Your task to perform on an android device: Open maps Image 0: 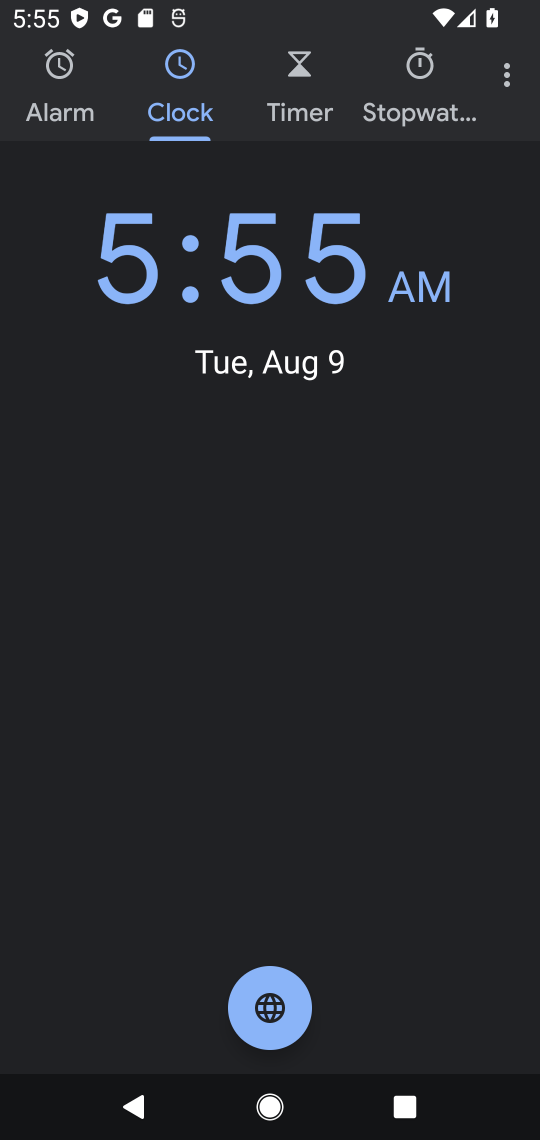
Step 0: press home button
Your task to perform on an android device: Open maps Image 1: 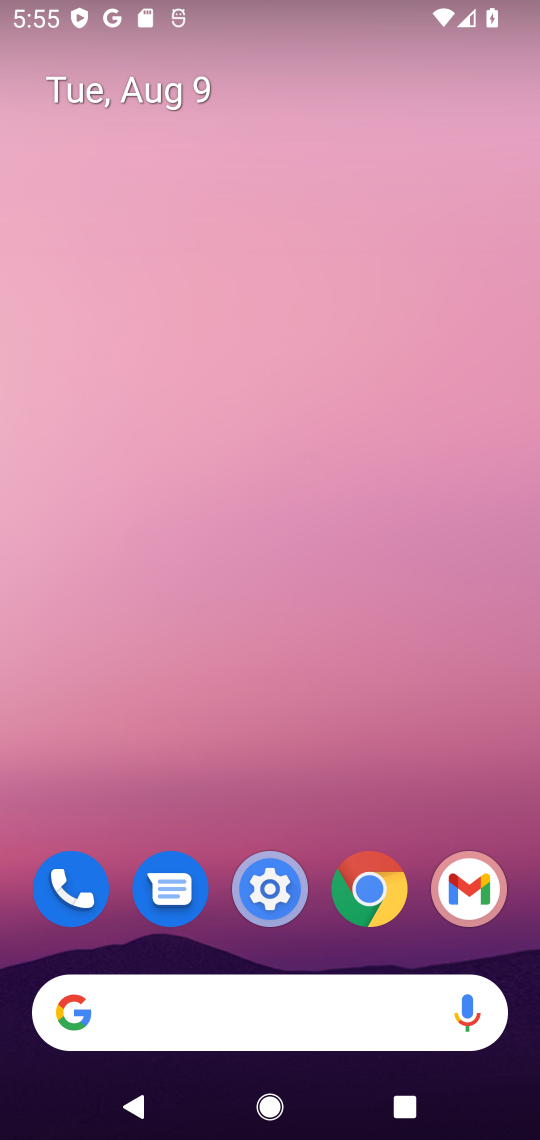
Step 1: drag from (273, 1012) to (283, 63)
Your task to perform on an android device: Open maps Image 2: 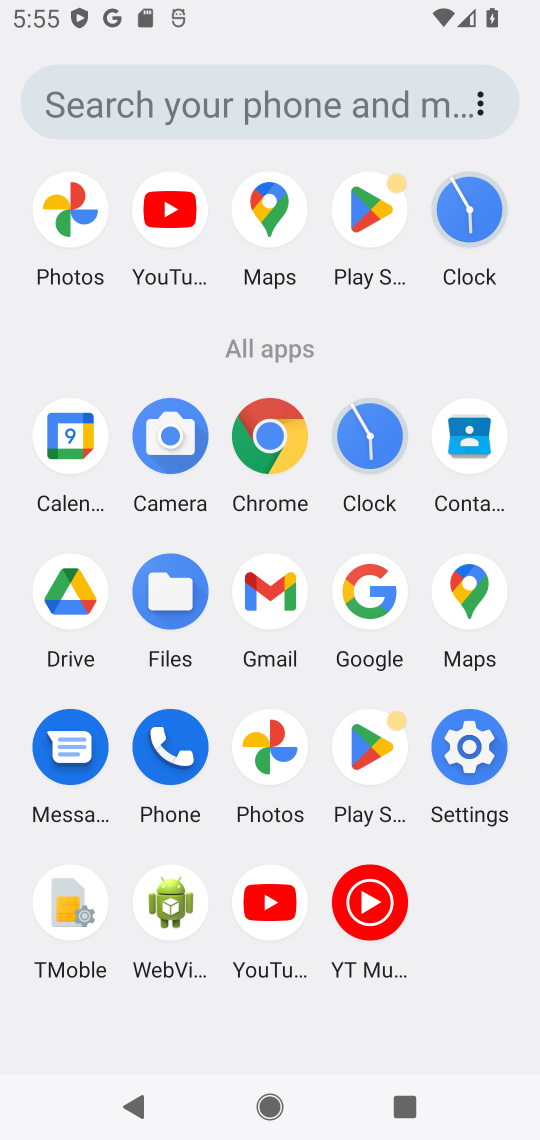
Step 2: click (470, 590)
Your task to perform on an android device: Open maps Image 3: 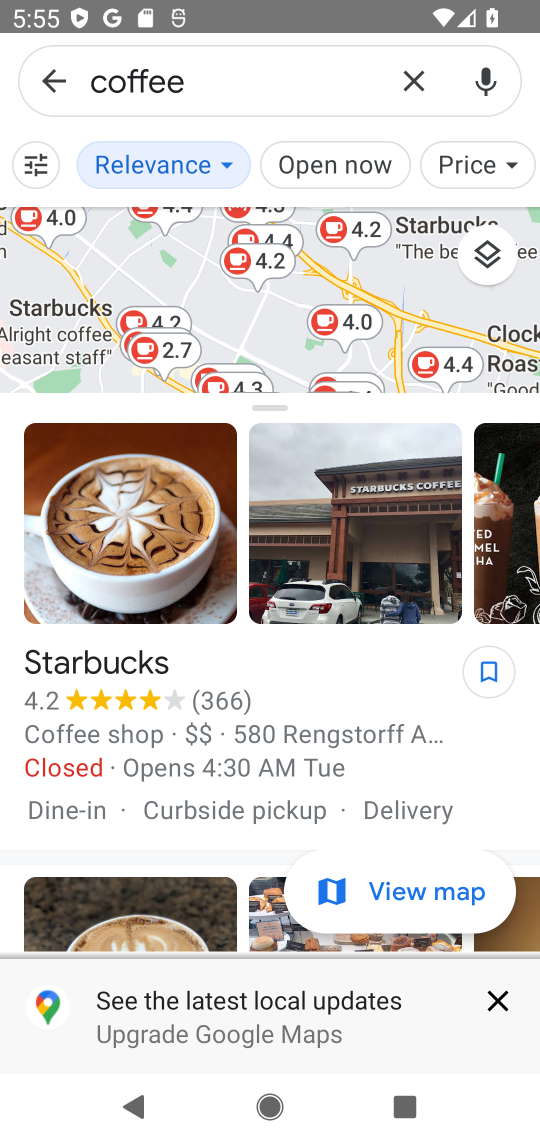
Step 3: task complete